Your task to perform on an android device: open app "Yahoo Mail" (install if not already installed) and go to login screen Image 0: 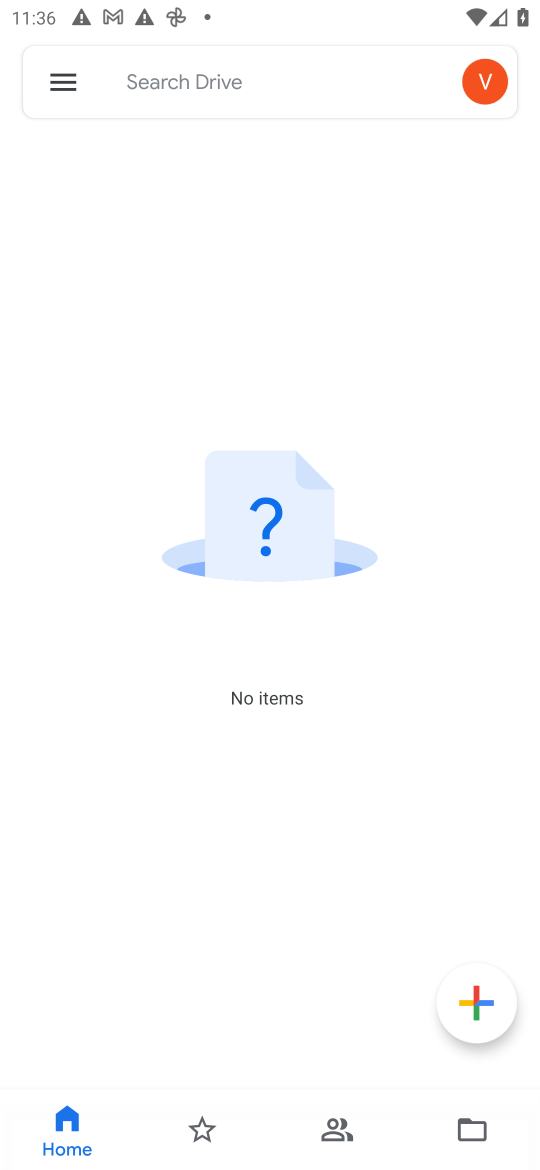
Step 0: press home button
Your task to perform on an android device: open app "Yahoo Mail" (install if not already installed) and go to login screen Image 1: 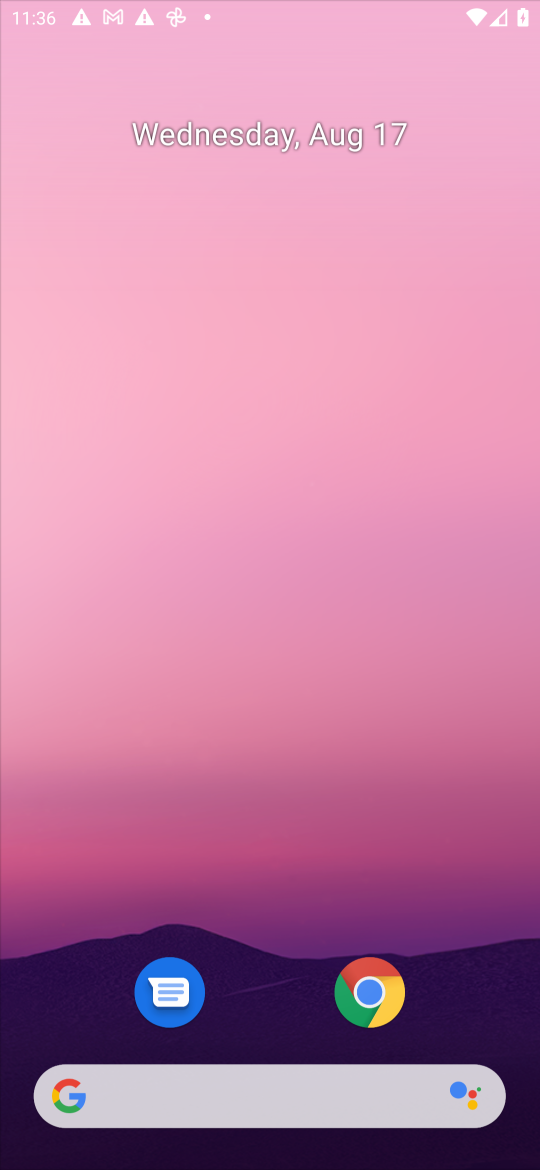
Step 1: drag from (508, 1041) to (232, 40)
Your task to perform on an android device: open app "Yahoo Mail" (install if not already installed) and go to login screen Image 2: 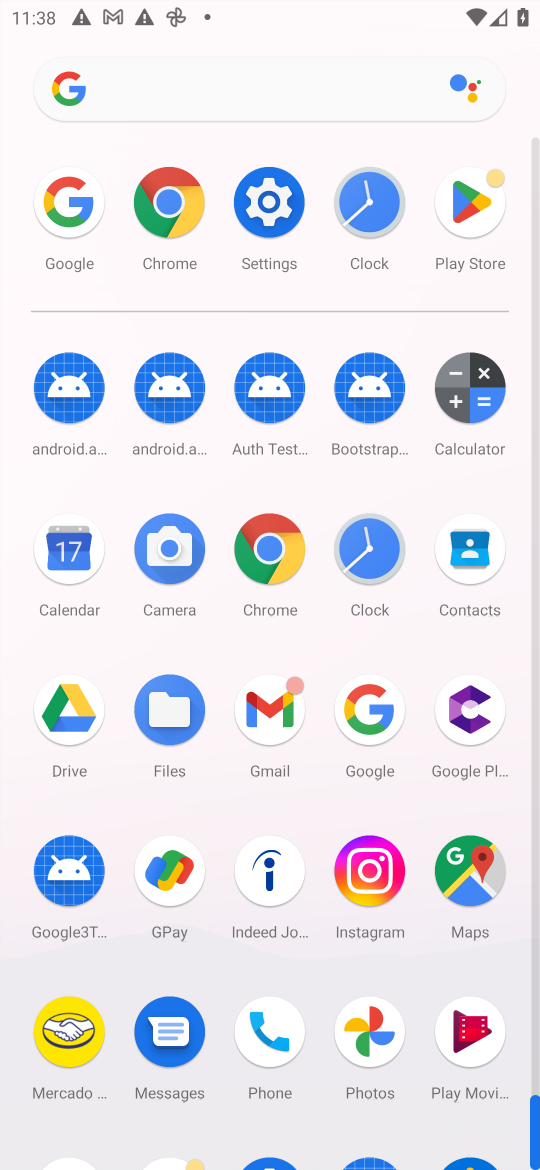
Step 2: click (465, 218)
Your task to perform on an android device: open app "Yahoo Mail" (install if not already installed) and go to login screen Image 3: 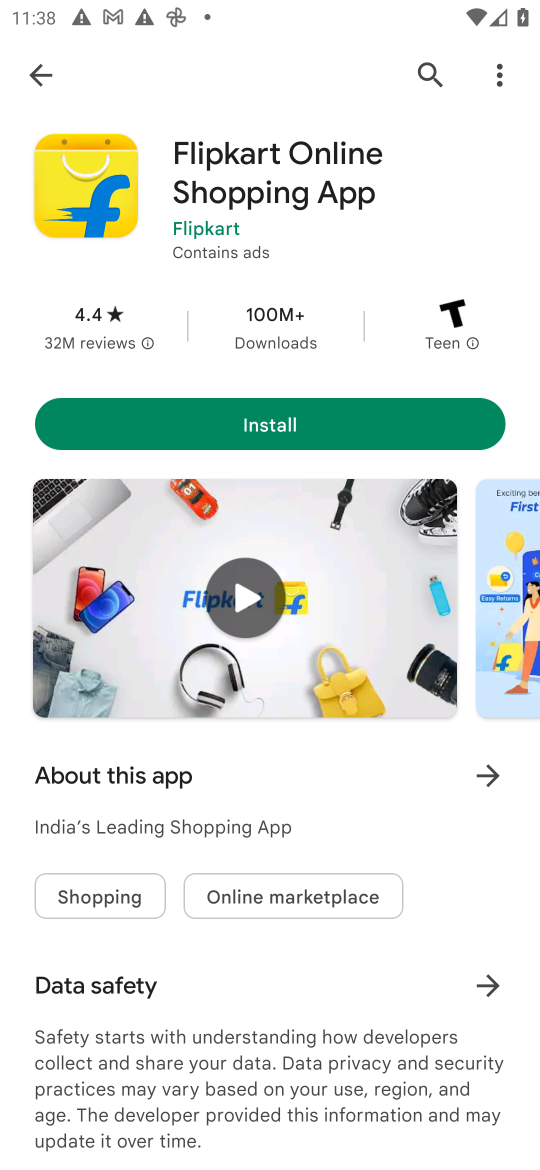
Step 3: press back button
Your task to perform on an android device: open app "Yahoo Mail" (install if not already installed) and go to login screen Image 4: 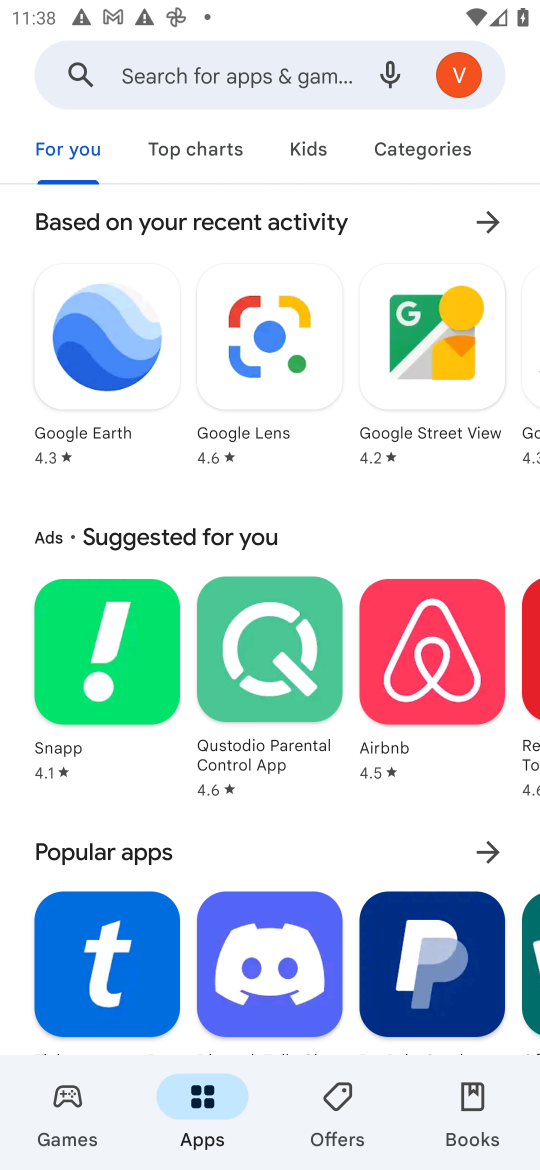
Step 4: click (238, 77)
Your task to perform on an android device: open app "Yahoo Mail" (install if not already installed) and go to login screen Image 5: 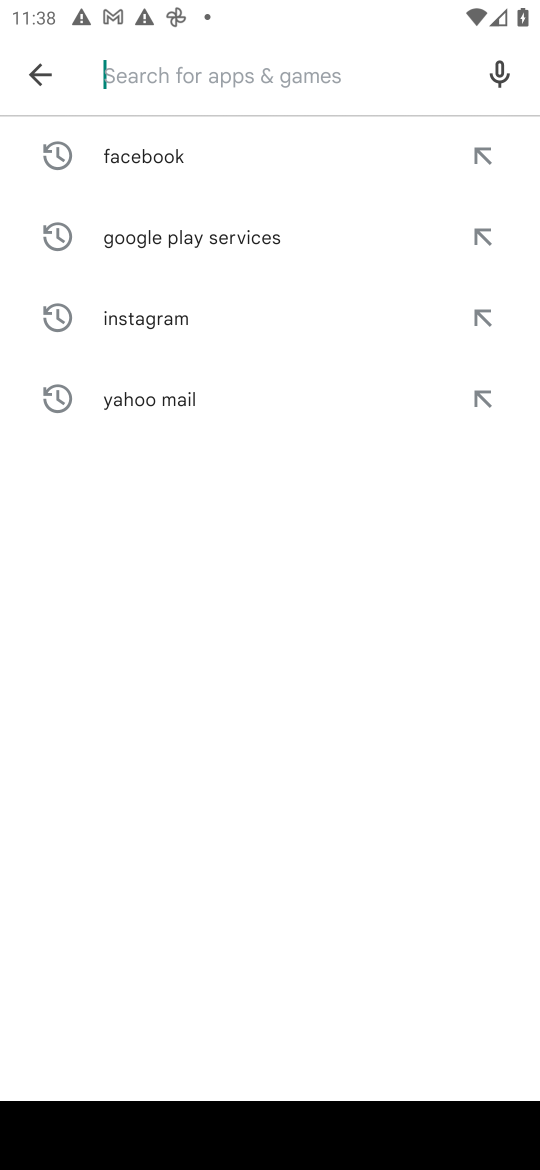
Step 5: type "Yahoo Mail"
Your task to perform on an android device: open app "Yahoo Mail" (install if not already installed) and go to login screen Image 6: 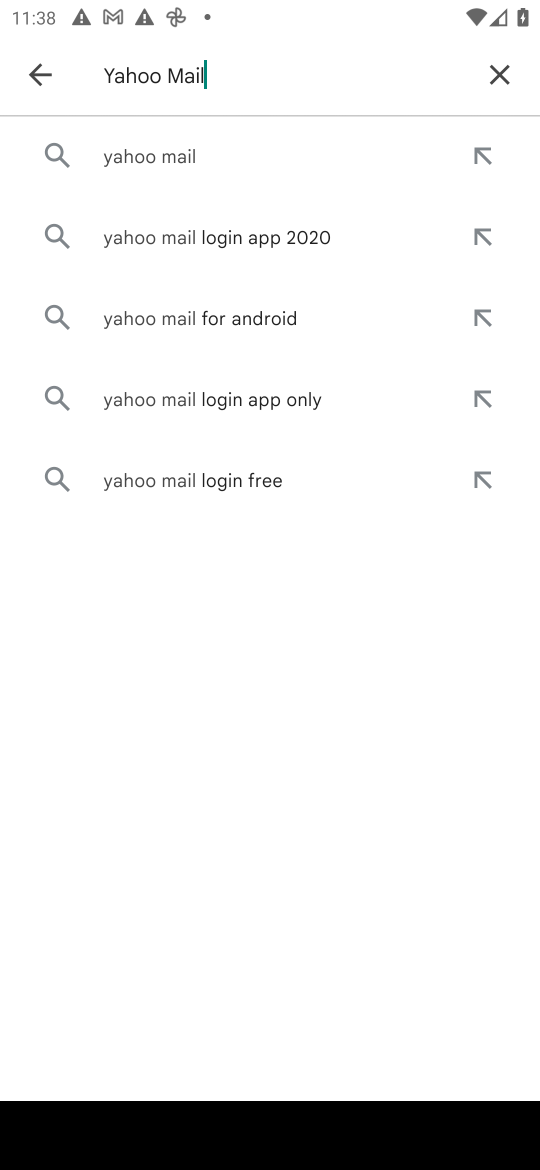
Step 6: click (179, 180)
Your task to perform on an android device: open app "Yahoo Mail" (install if not already installed) and go to login screen Image 7: 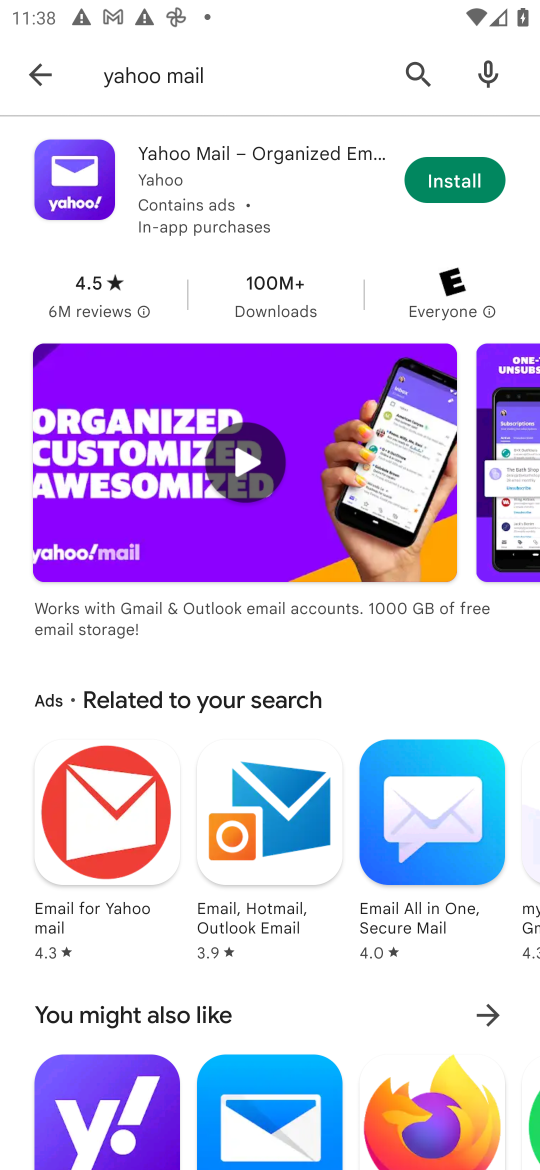
Step 7: task complete